Your task to perform on an android device: turn on the 12-hour format for clock Image 0: 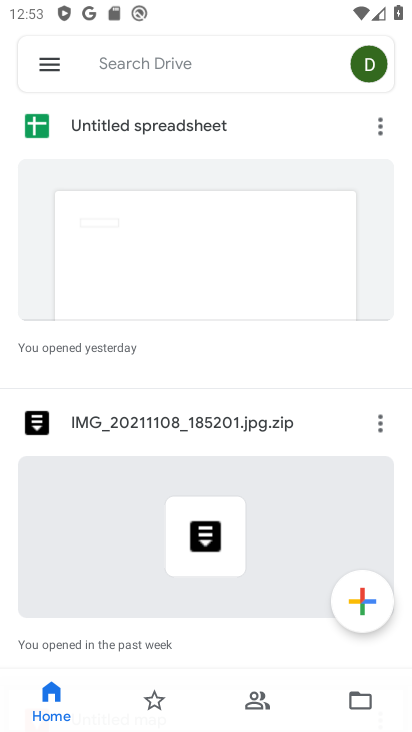
Step 0: press home button
Your task to perform on an android device: turn on the 12-hour format for clock Image 1: 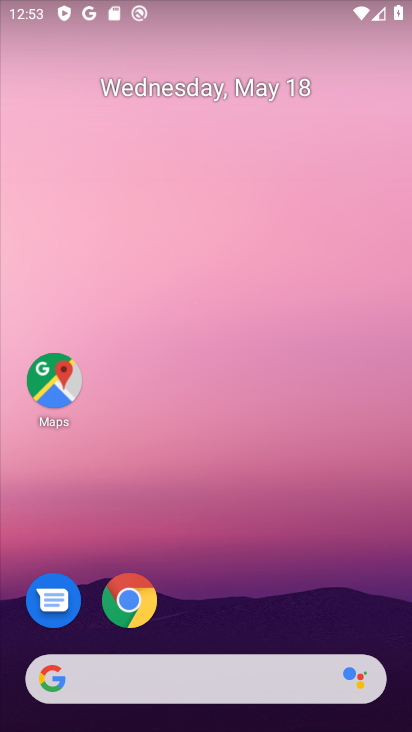
Step 1: drag from (171, 604) to (209, 165)
Your task to perform on an android device: turn on the 12-hour format for clock Image 2: 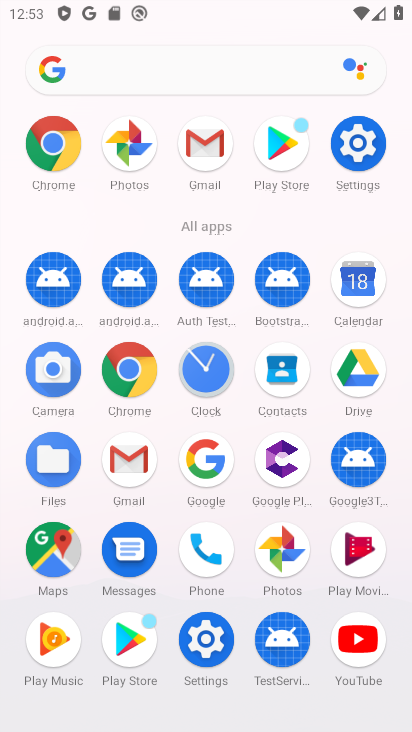
Step 2: click (207, 376)
Your task to perform on an android device: turn on the 12-hour format for clock Image 3: 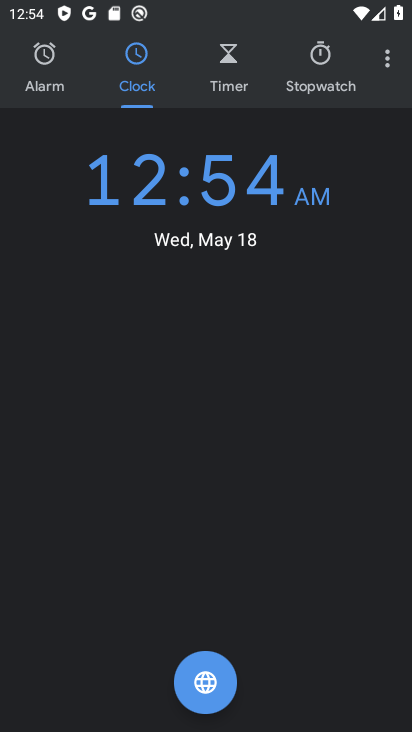
Step 3: click (391, 63)
Your task to perform on an android device: turn on the 12-hour format for clock Image 4: 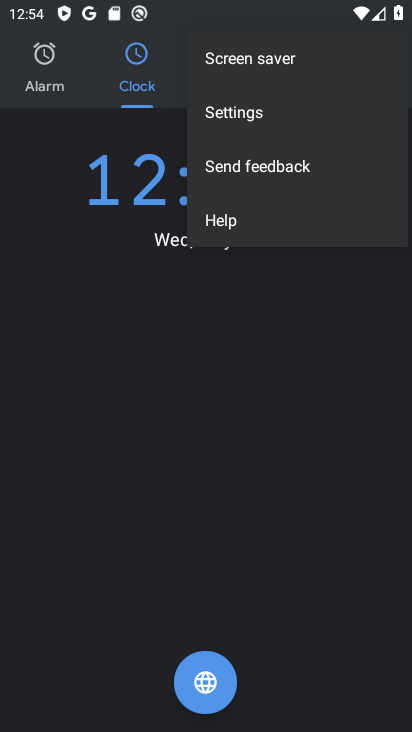
Step 4: click (227, 116)
Your task to perform on an android device: turn on the 12-hour format for clock Image 5: 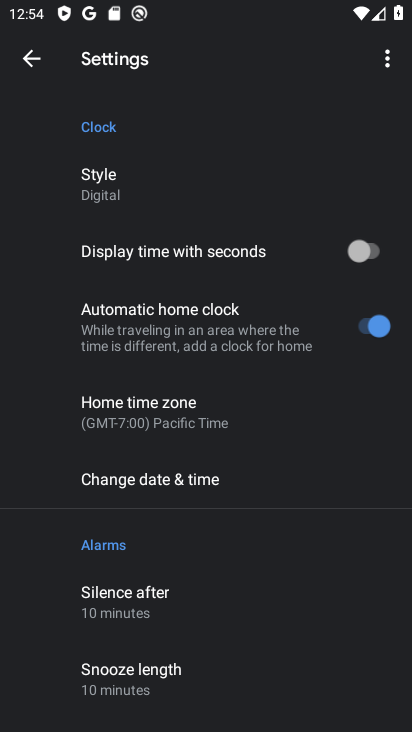
Step 5: click (159, 479)
Your task to perform on an android device: turn on the 12-hour format for clock Image 6: 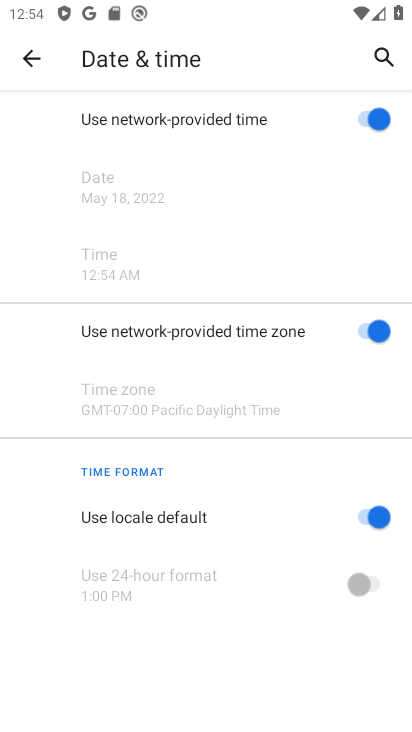
Step 6: task complete